Your task to perform on an android device: Search for seafood restaurants on Google Maps Image 0: 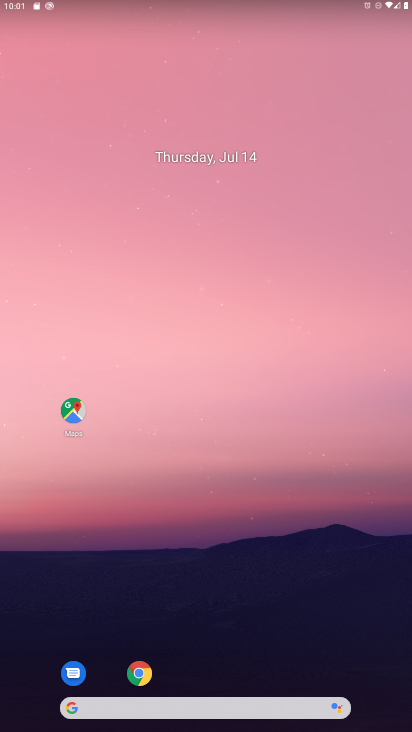
Step 0: click (80, 402)
Your task to perform on an android device: Search for seafood restaurants on Google Maps Image 1: 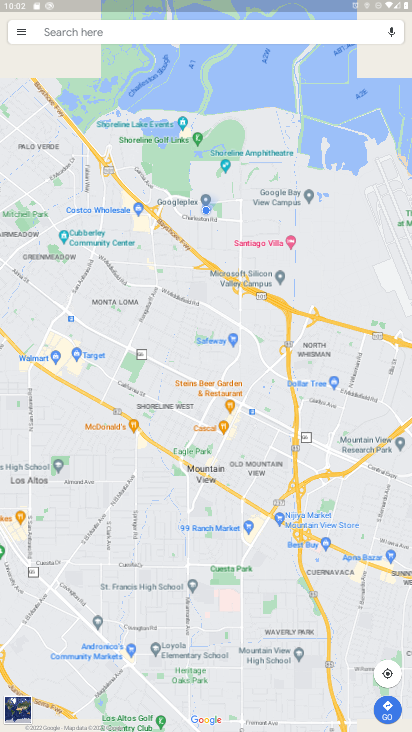
Step 1: click (291, 35)
Your task to perform on an android device: Search for seafood restaurants on Google Maps Image 2: 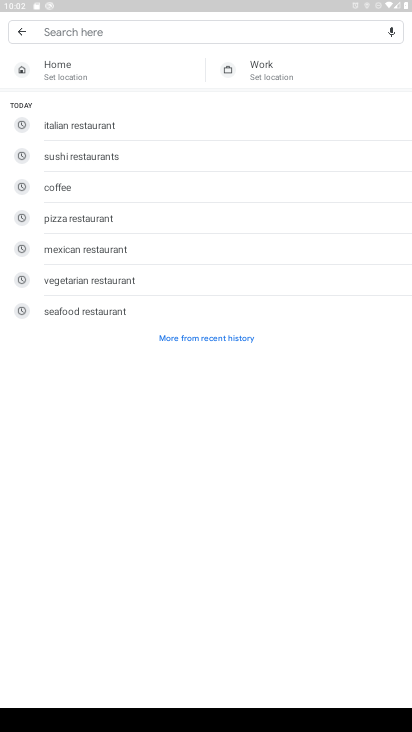
Step 2: type "seafood restaurants"
Your task to perform on an android device: Search for seafood restaurants on Google Maps Image 3: 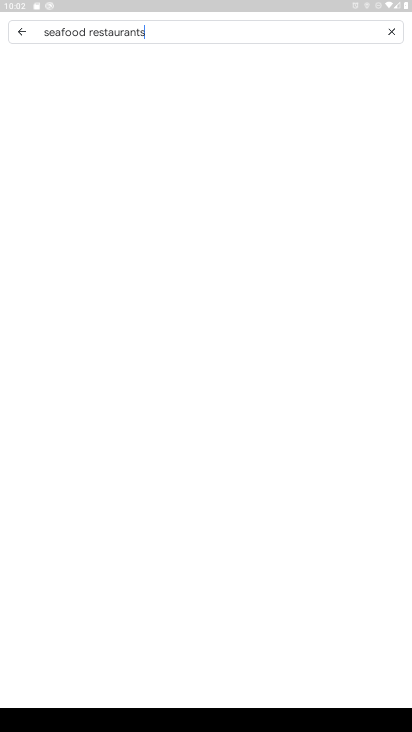
Step 3: type ""
Your task to perform on an android device: Search for seafood restaurants on Google Maps Image 4: 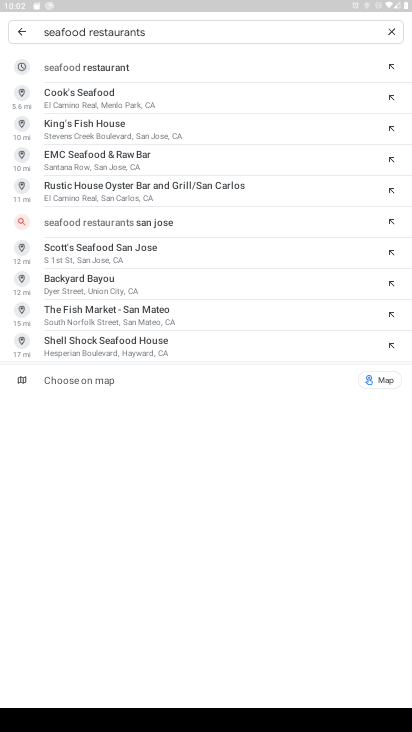
Step 4: click (107, 72)
Your task to perform on an android device: Search for seafood restaurants on Google Maps Image 5: 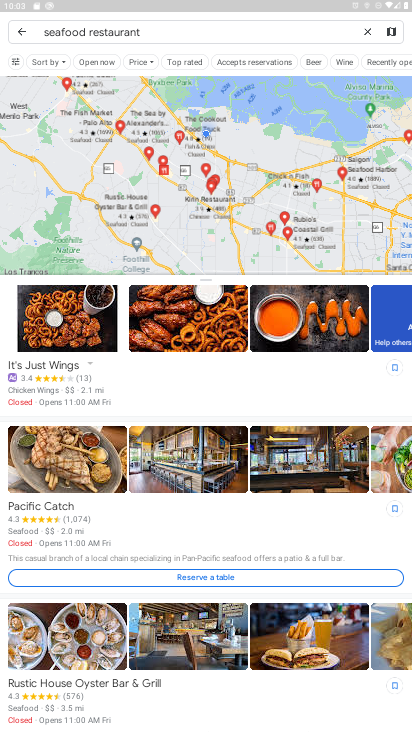
Step 5: task complete